Your task to perform on an android device: Clear the cart on target.com. Search for "razer deathadder" on target.com, select the first entry, and add it to the cart. Image 0: 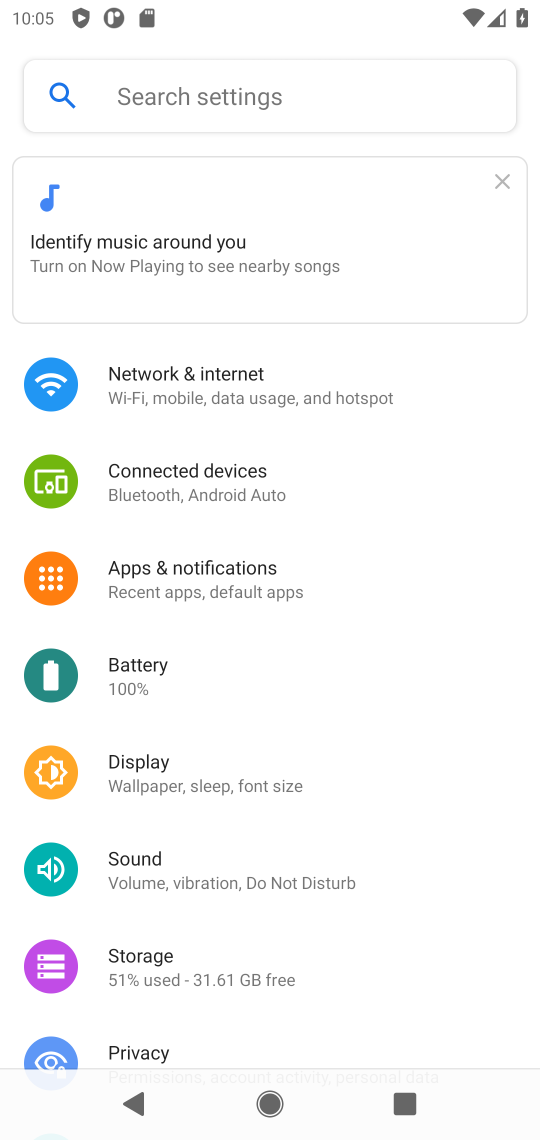
Step 0: press home button
Your task to perform on an android device: Clear the cart on target.com. Search for "razer deathadder" on target.com, select the first entry, and add it to the cart. Image 1: 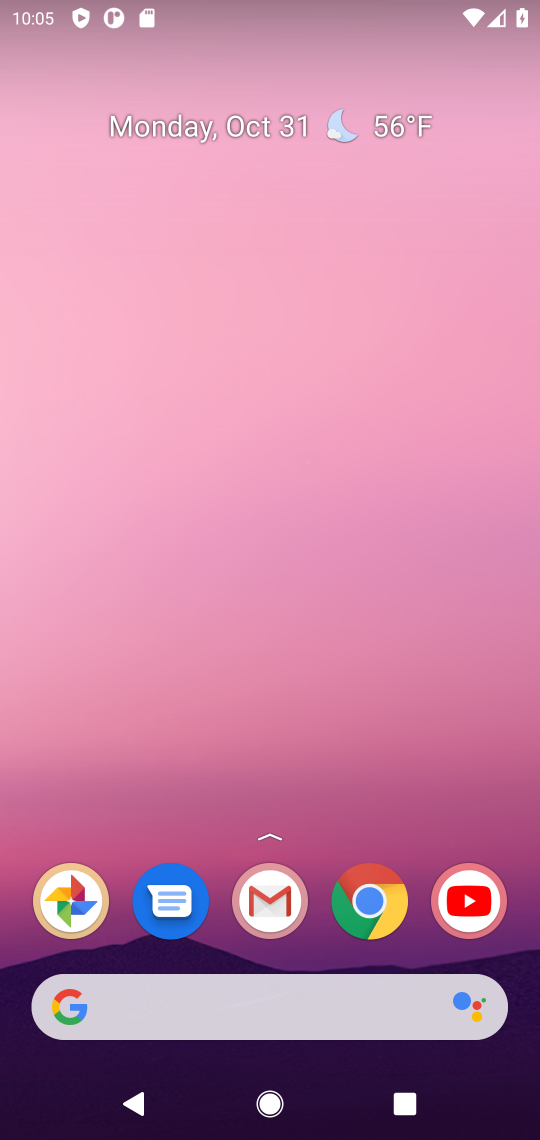
Step 1: drag from (79, 1101) to (151, 355)
Your task to perform on an android device: Clear the cart on target.com. Search for "razer deathadder" on target.com, select the first entry, and add it to the cart. Image 2: 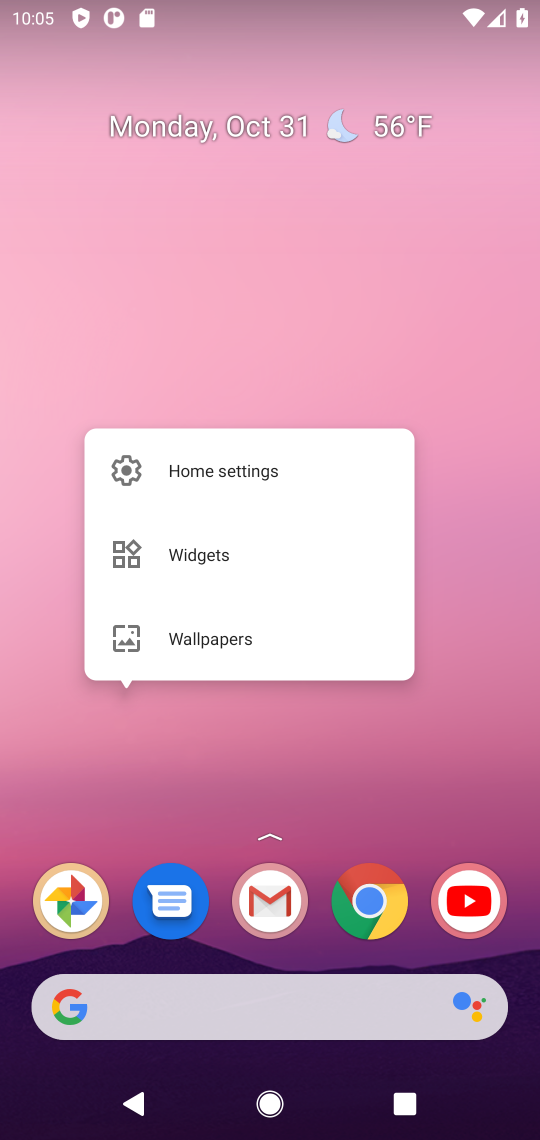
Step 2: click (289, 779)
Your task to perform on an android device: Clear the cart on target.com. Search for "razer deathadder" on target.com, select the first entry, and add it to the cart. Image 3: 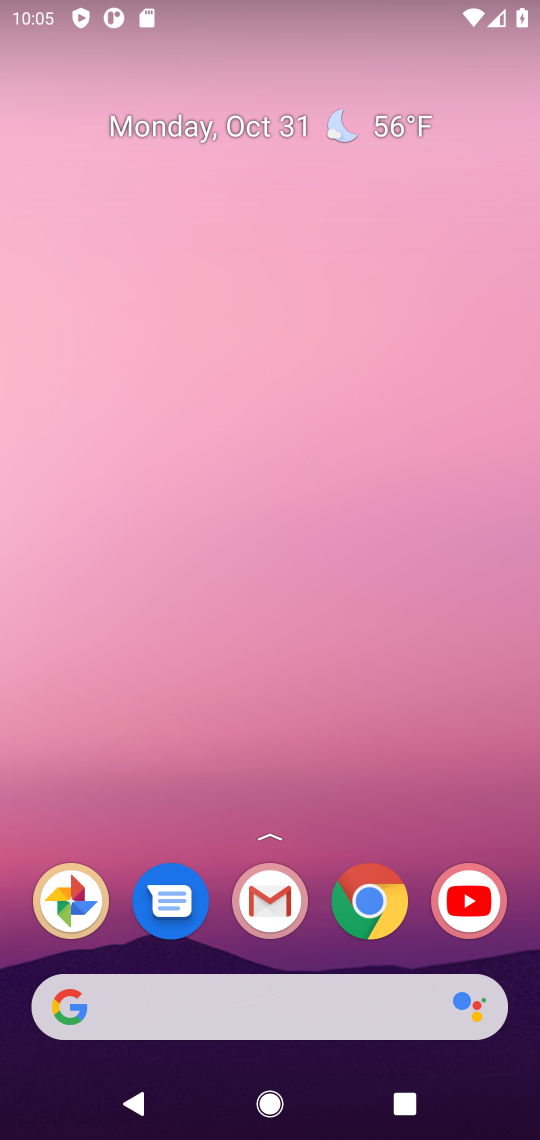
Step 3: drag from (177, 927) to (236, 52)
Your task to perform on an android device: Clear the cart on target.com. Search for "razer deathadder" on target.com, select the first entry, and add it to the cart. Image 4: 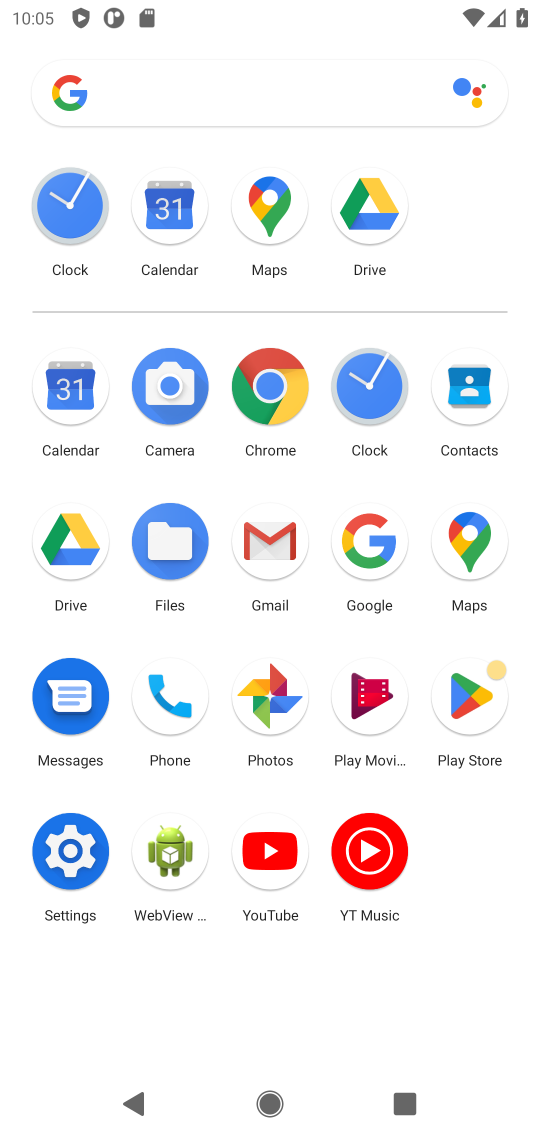
Step 4: click (377, 533)
Your task to perform on an android device: Clear the cart on target.com. Search for "razer deathadder" on target.com, select the first entry, and add it to the cart. Image 5: 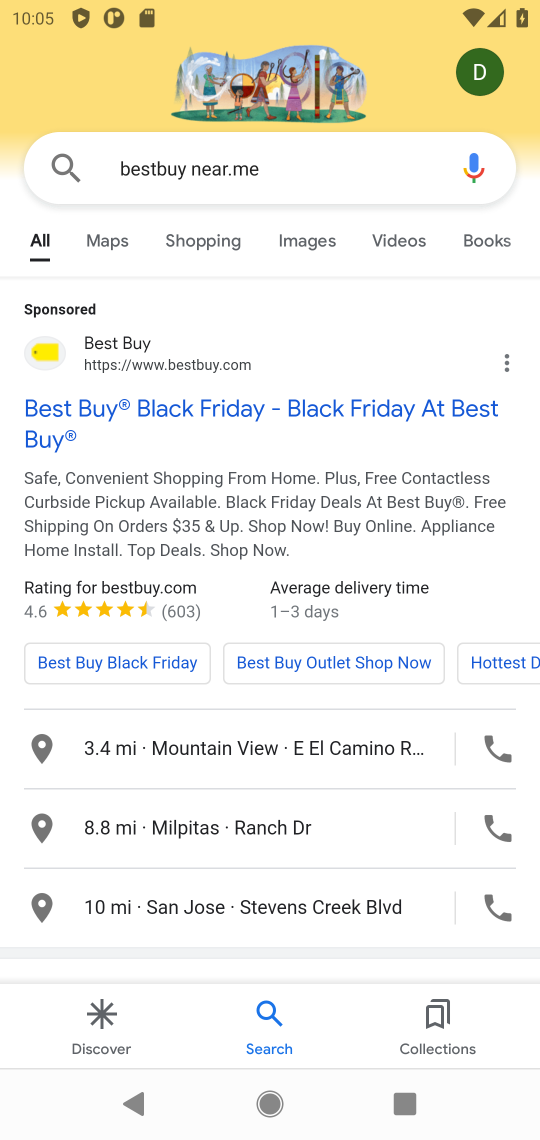
Step 5: click (271, 160)
Your task to perform on an android device: Clear the cart on target.com. Search for "razer deathadder" on target.com, select the first entry, and add it to the cart. Image 6: 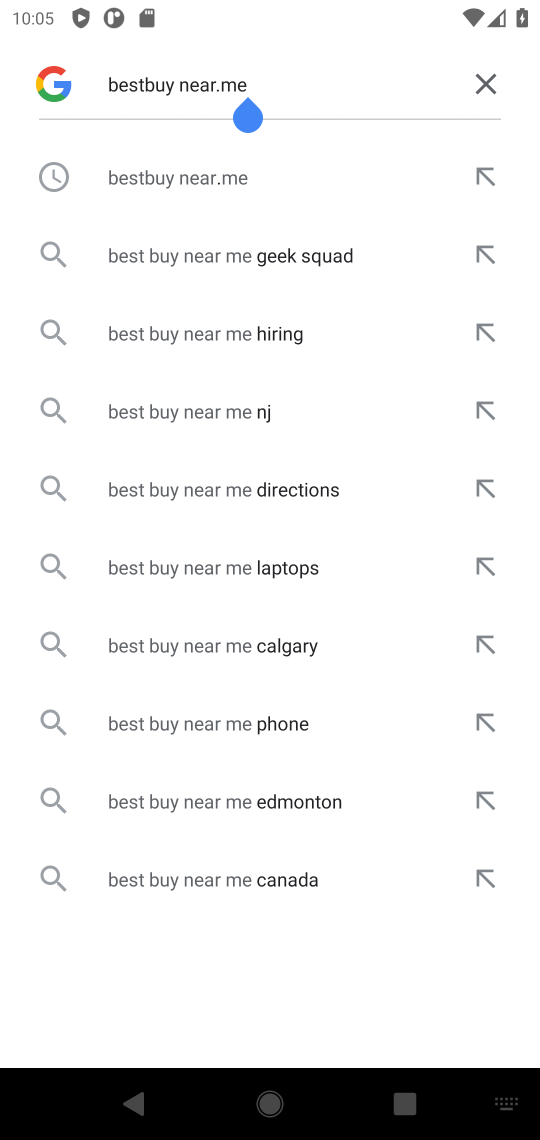
Step 6: click (473, 83)
Your task to perform on an android device: Clear the cart on target.com. Search for "razer deathadder" on target.com, select the first entry, and add it to the cart. Image 7: 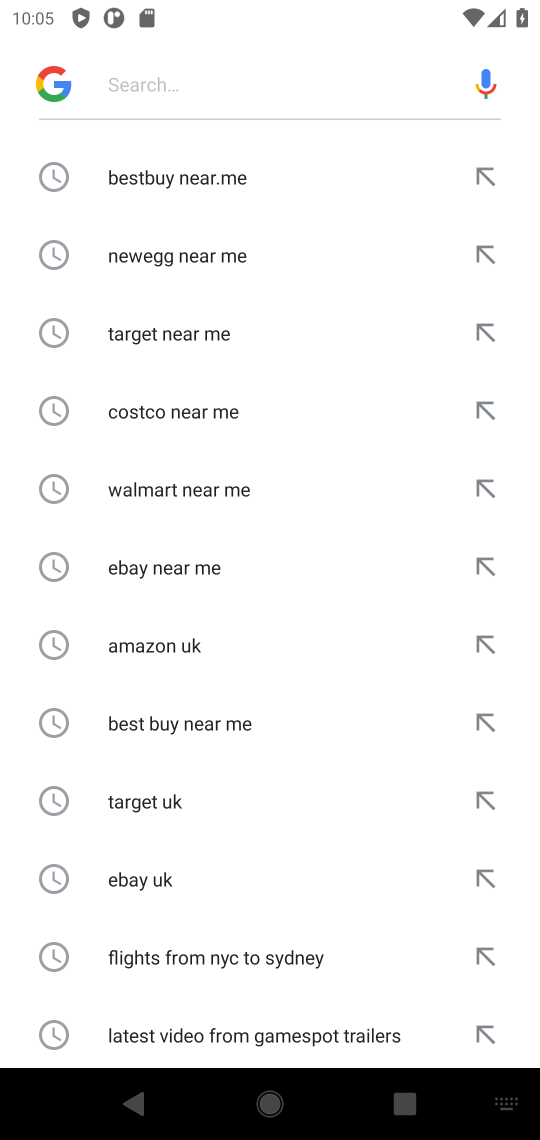
Step 7: click (191, 82)
Your task to perform on an android device: Clear the cart on target.com. Search for "razer deathadder" on target.com, select the first entry, and add it to the cart. Image 8: 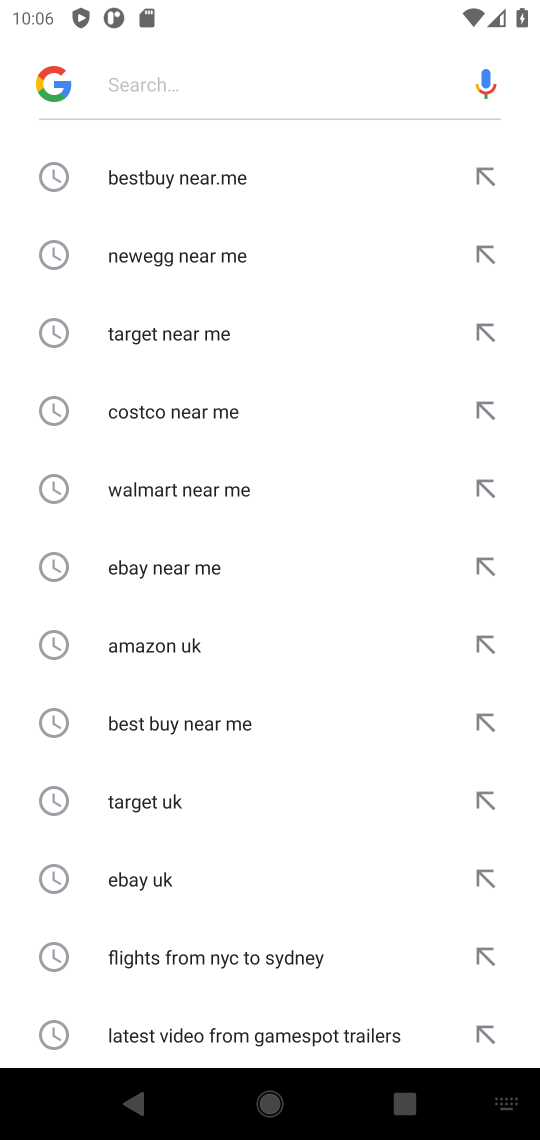
Step 8: type "target "
Your task to perform on an android device: Clear the cart on target.com. Search for "razer deathadder" on target.com, select the first entry, and add it to the cart. Image 9: 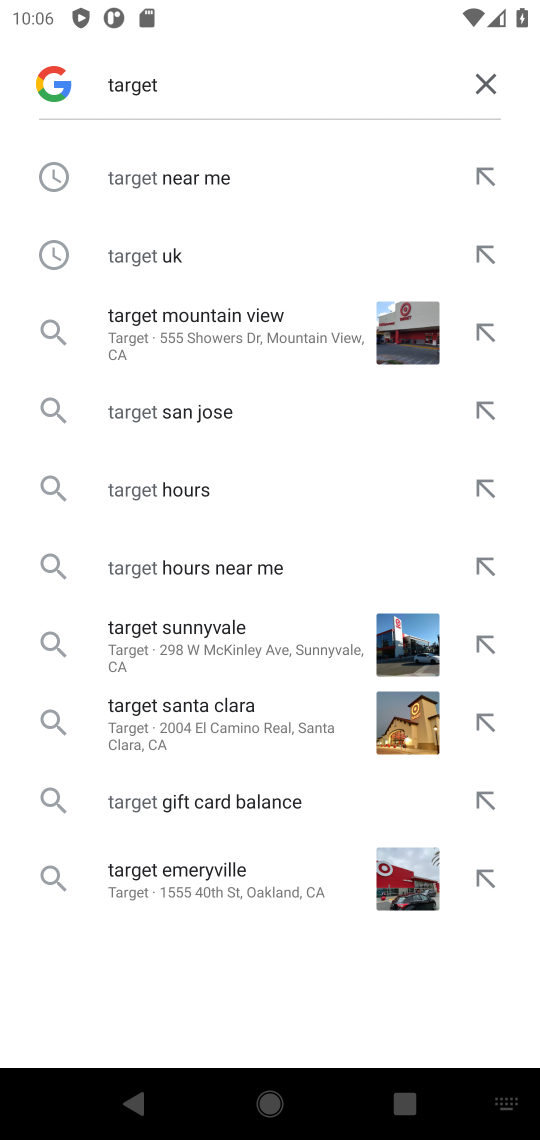
Step 9: click (191, 181)
Your task to perform on an android device: Clear the cart on target.com. Search for "razer deathadder" on target.com, select the first entry, and add it to the cart. Image 10: 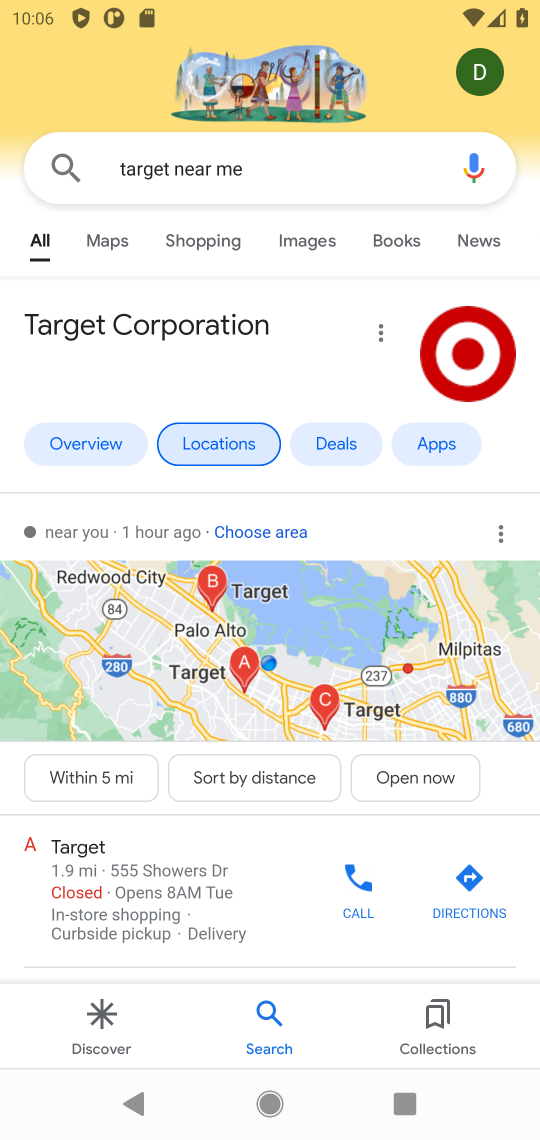
Step 10: drag from (198, 912) to (202, 192)
Your task to perform on an android device: Clear the cart on target.com. Search for "razer deathadder" on target.com, select the first entry, and add it to the cart. Image 11: 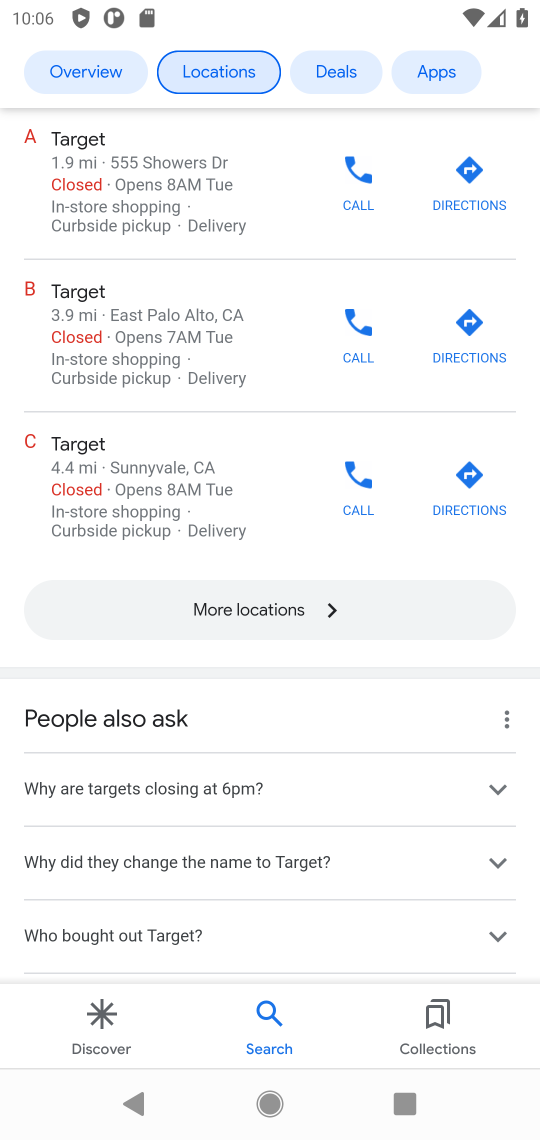
Step 11: drag from (148, 864) to (216, 164)
Your task to perform on an android device: Clear the cart on target.com. Search for "razer deathadder" on target.com, select the first entry, and add it to the cart. Image 12: 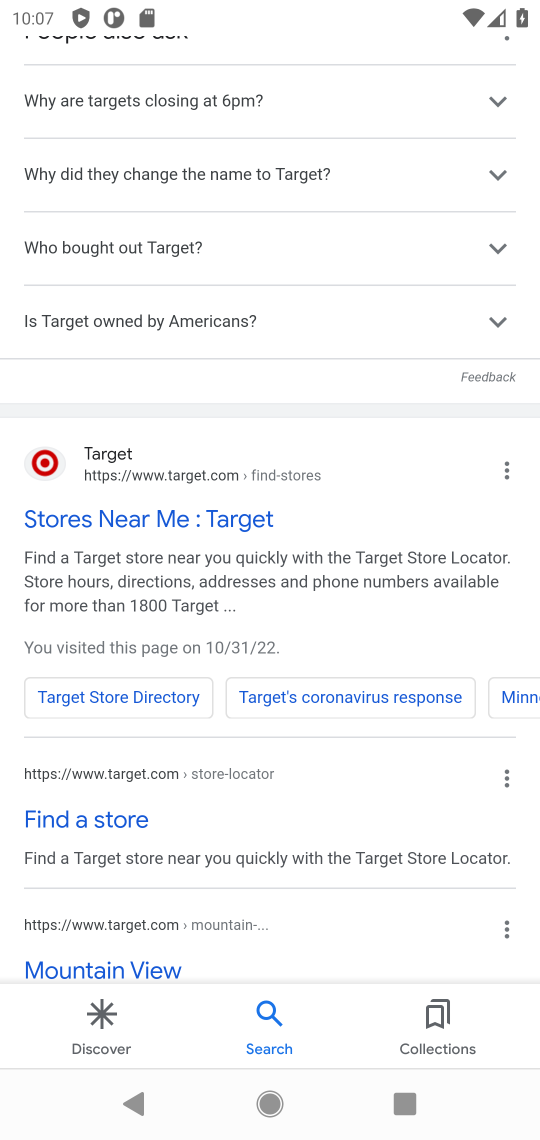
Step 12: click (37, 454)
Your task to perform on an android device: Clear the cart on target.com. Search for "razer deathadder" on target.com, select the first entry, and add it to the cart. Image 13: 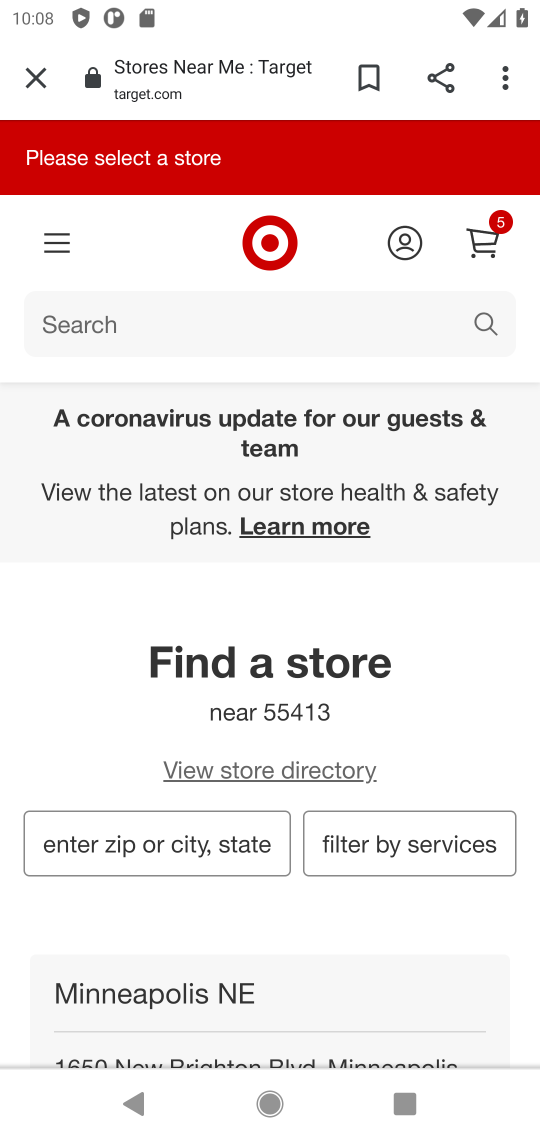
Step 13: click (473, 246)
Your task to perform on an android device: Clear the cart on target.com. Search for "razer deathadder" on target.com, select the first entry, and add it to the cart. Image 14: 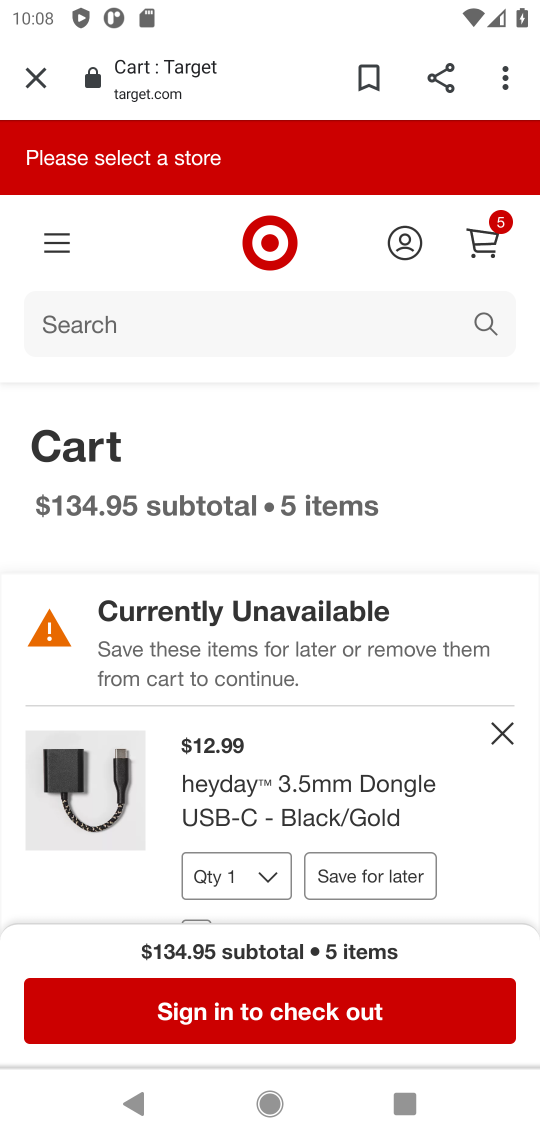
Step 14: drag from (320, 777) to (329, 491)
Your task to perform on an android device: Clear the cart on target.com. Search for "razer deathadder" on target.com, select the first entry, and add it to the cart. Image 15: 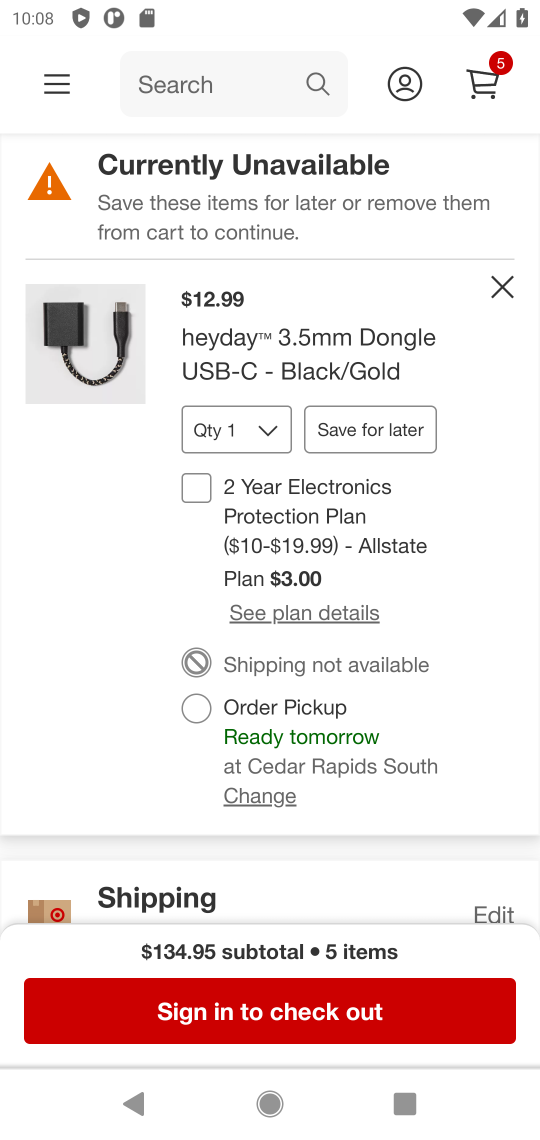
Step 15: drag from (320, 881) to (344, 342)
Your task to perform on an android device: Clear the cart on target.com. Search for "razer deathadder" on target.com, select the first entry, and add it to the cart. Image 16: 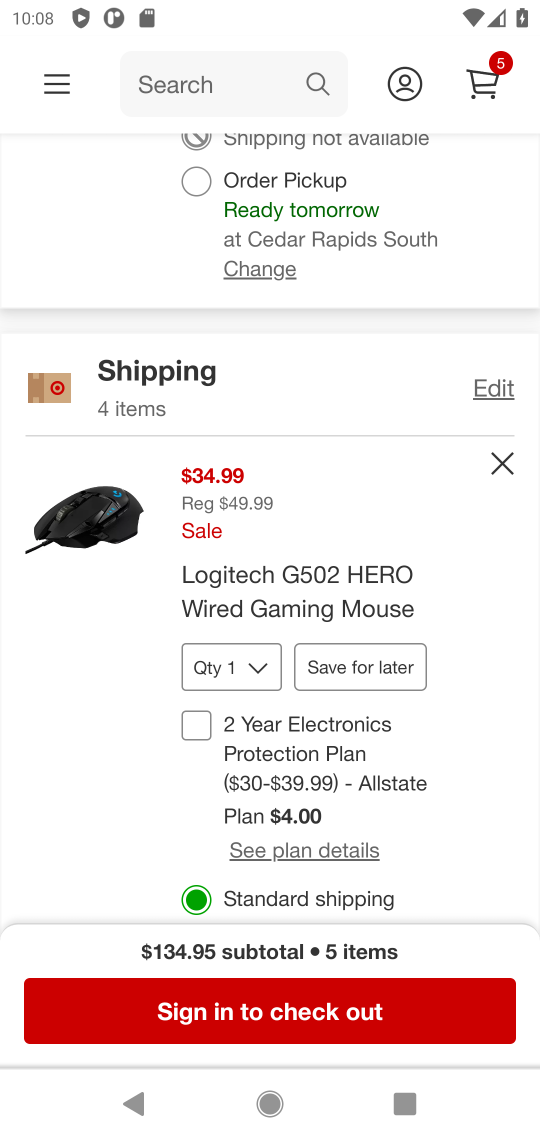
Step 16: drag from (317, 813) to (325, 402)
Your task to perform on an android device: Clear the cart on target.com. Search for "razer deathadder" on target.com, select the first entry, and add it to the cart. Image 17: 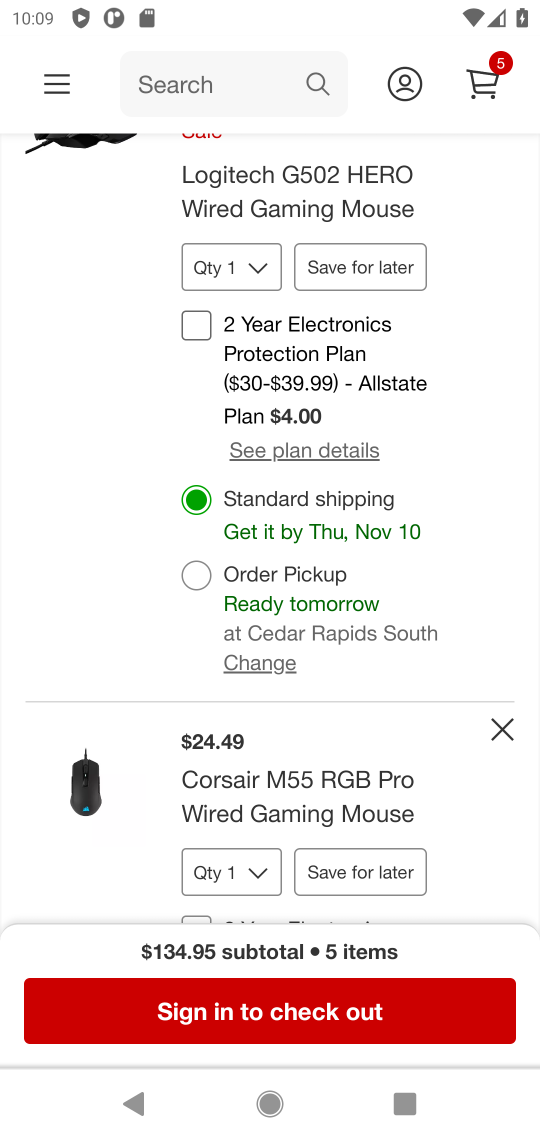
Step 17: drag from (354, 203) to (307, 646)
Your task to perform on an android device: Clear the cart on target.com. Search for "razer deathadder" on target.com, select the first entry, and add it to the cart. Image 18: 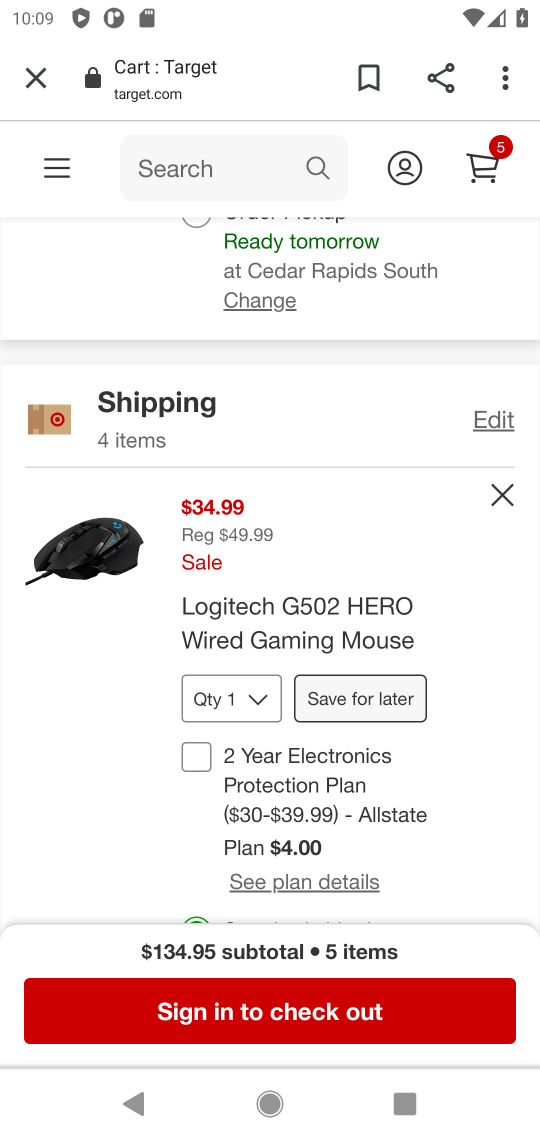
Step 18: drag from (346, 443) to (294, 834)
Your task to perform on an android device: Clear the cart on target.com. Search for "razer deathadder" on target.com, select the first entry, and add it to the cart. Image 19: 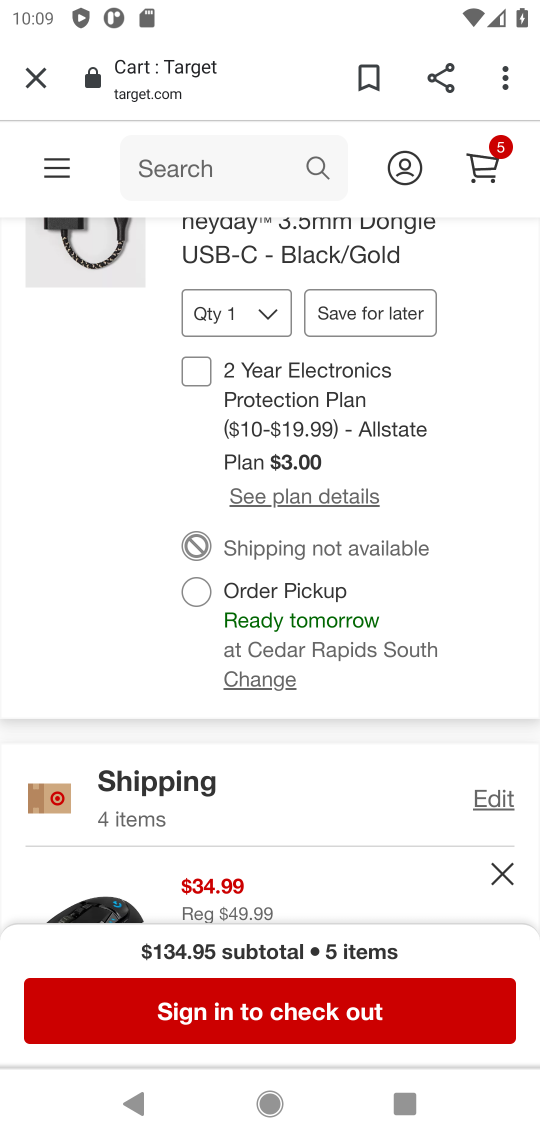
Step 19: drag from (281, 422) to (229, 808)
Your task to perform on an android device: Clear the cart on target.com. Search for "razer deathadder" on target.com, select the first entry, and add it to the cart. Image 20: 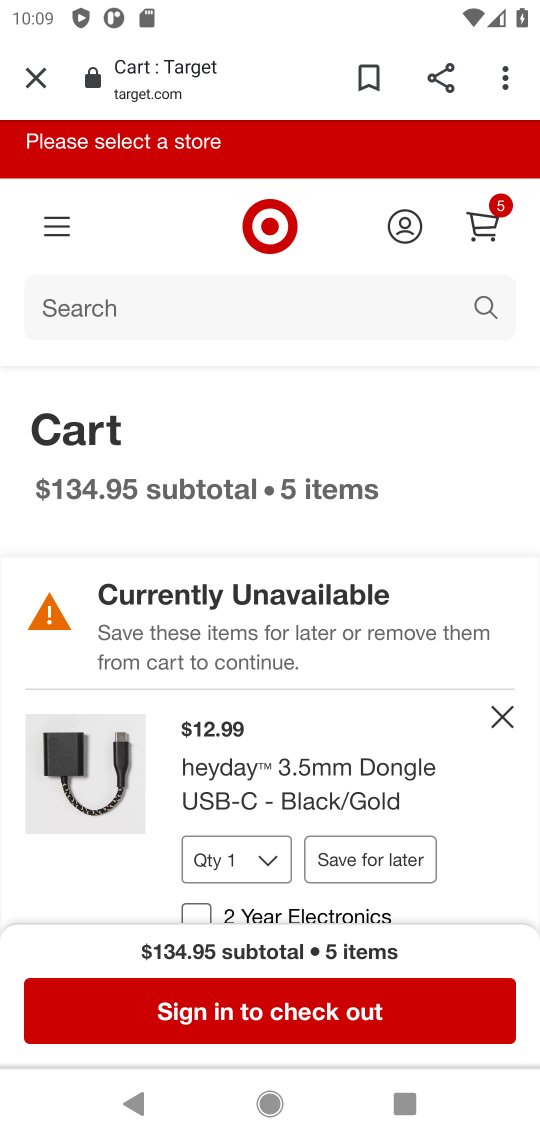
Step 20: click (496, 719)
Your task to perform on an android device: Clear the cart on target.com. Search for "razer deathadder" on target.com, select the first entry, and add it to the cart. Image 21: 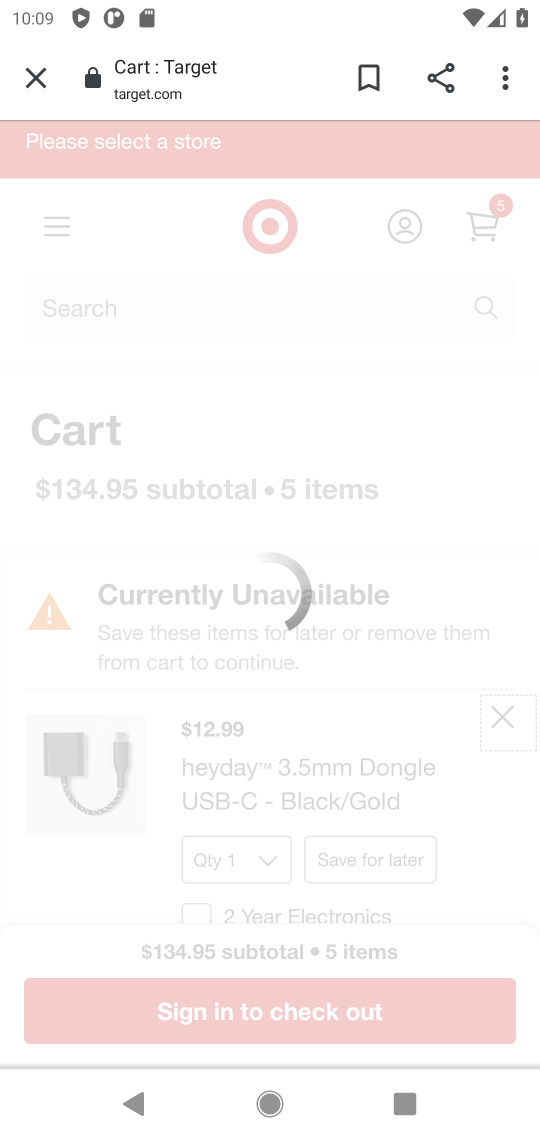
Step 21: drag from (366, 723) to (387, 578)
Your task to perform on an android device: Clear the cart on target.com. Search for "razer deathadder" on target.com, select the first entry, and add it to the cart. Image 22: 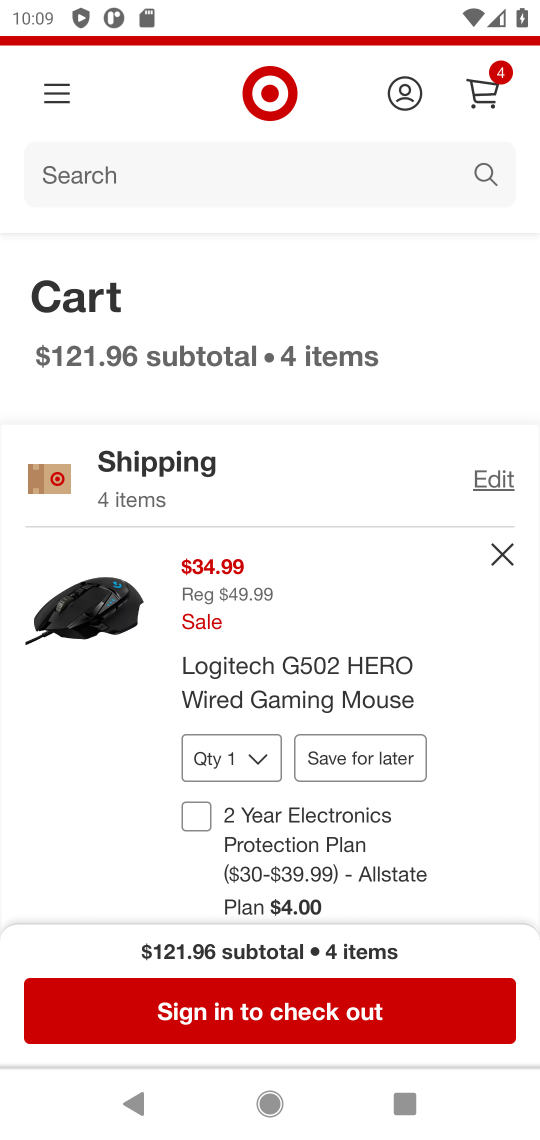
Step 22: click (505, 551)
Your task to perform on an android device: Clear the cart on target.com. Search for "razer deathadder" on target.com, select the first entry, and add it to the cart. Image 23: 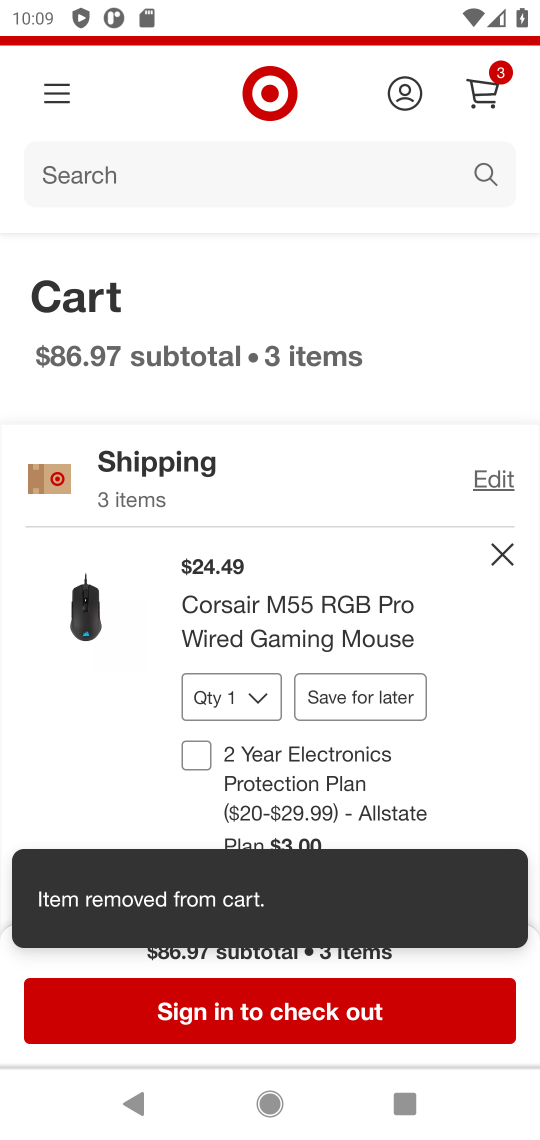
Step 23: click (502, 565)
Your task to perform on an android device: Clear the cart on target.com. Search for "razer deathadder" on target.com, select the first entry, and add it to the cart. Image 24: 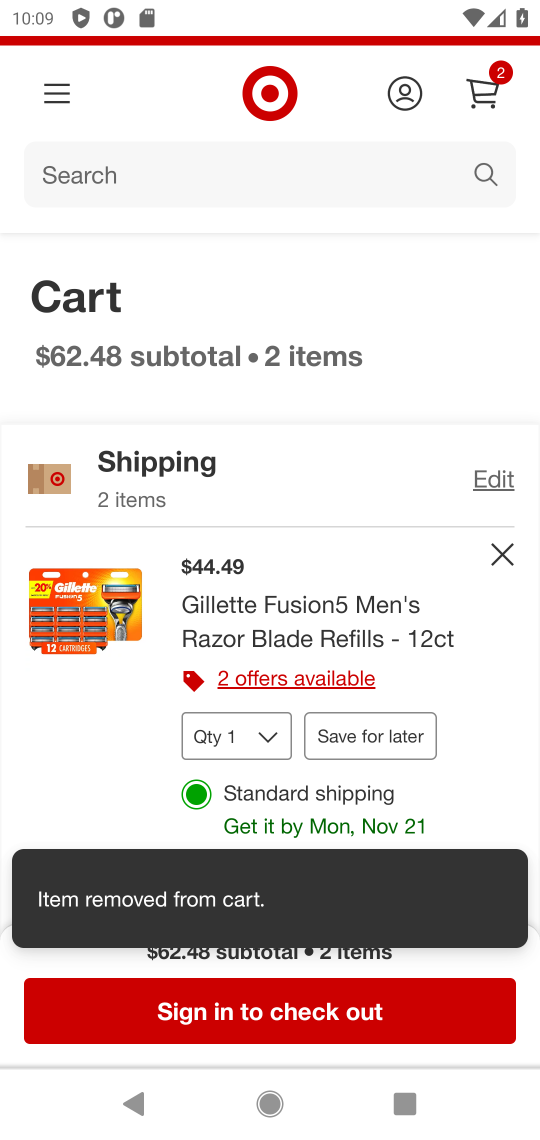
Step 24: click (502, 565)
Your task to perform on an android device: Clear the cart on target.com. Search for "razer deathadder" on target.com, select the first entry, and add it to the cart. Image 25: 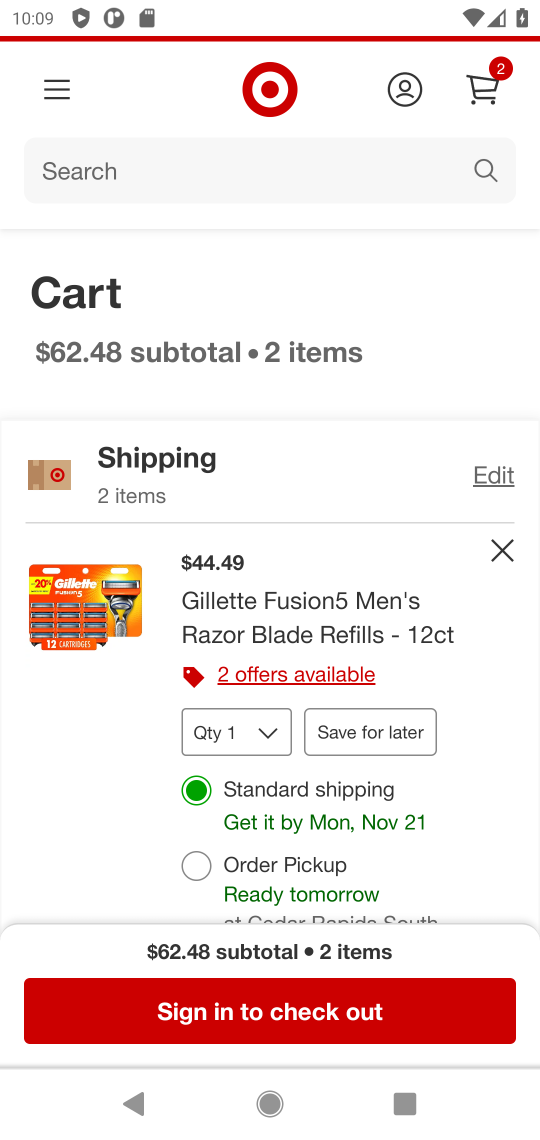
Step 25: click (496, 552)
Your task to perform on an android device: Clear the cart on target.com. Search for "razer deathadder" on target.com, select the first entry, and add it to the cart. Image 26: 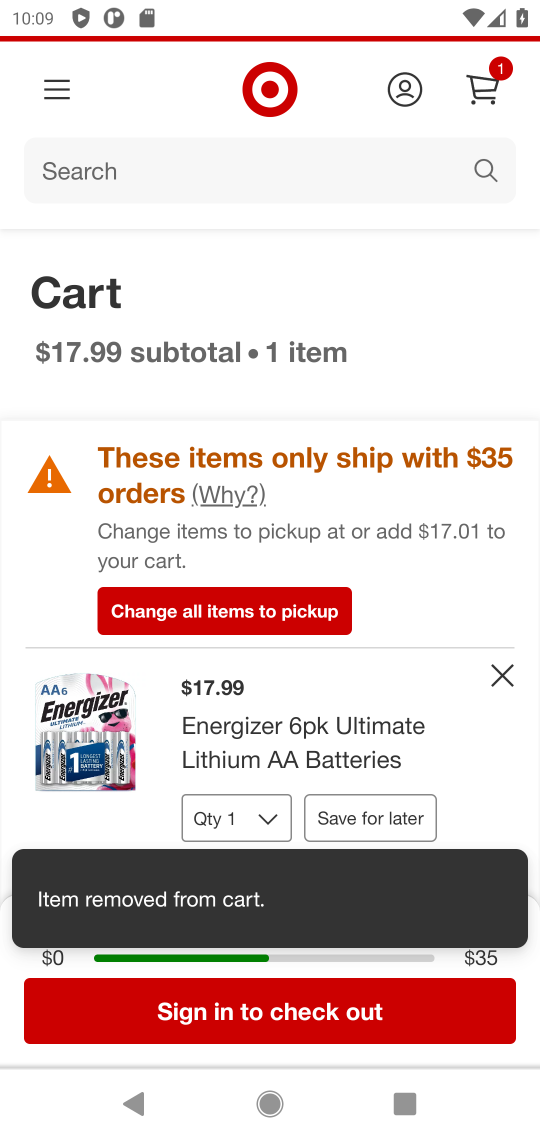
Step 26: click (496, 666)
Your task to perform on an android device: Clear the cart on target.com. Search for "razer deathadder" on target.com, select the first entry, and add it to the cart. Image 27: 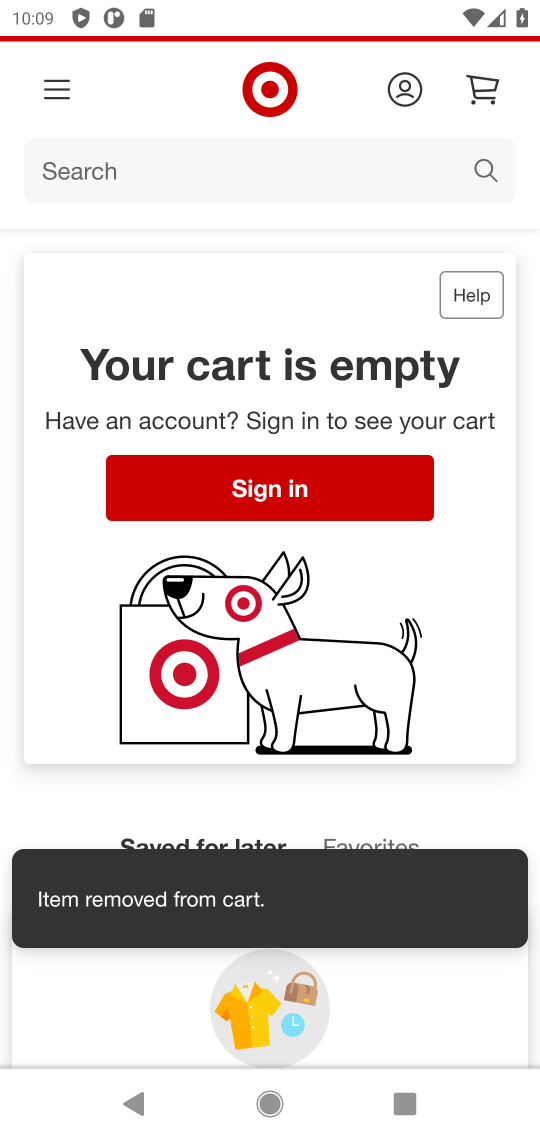
Step 27: task complete